Your task to perform on an android device: uninstall "eBay: The shopping marketplace" Image 0: 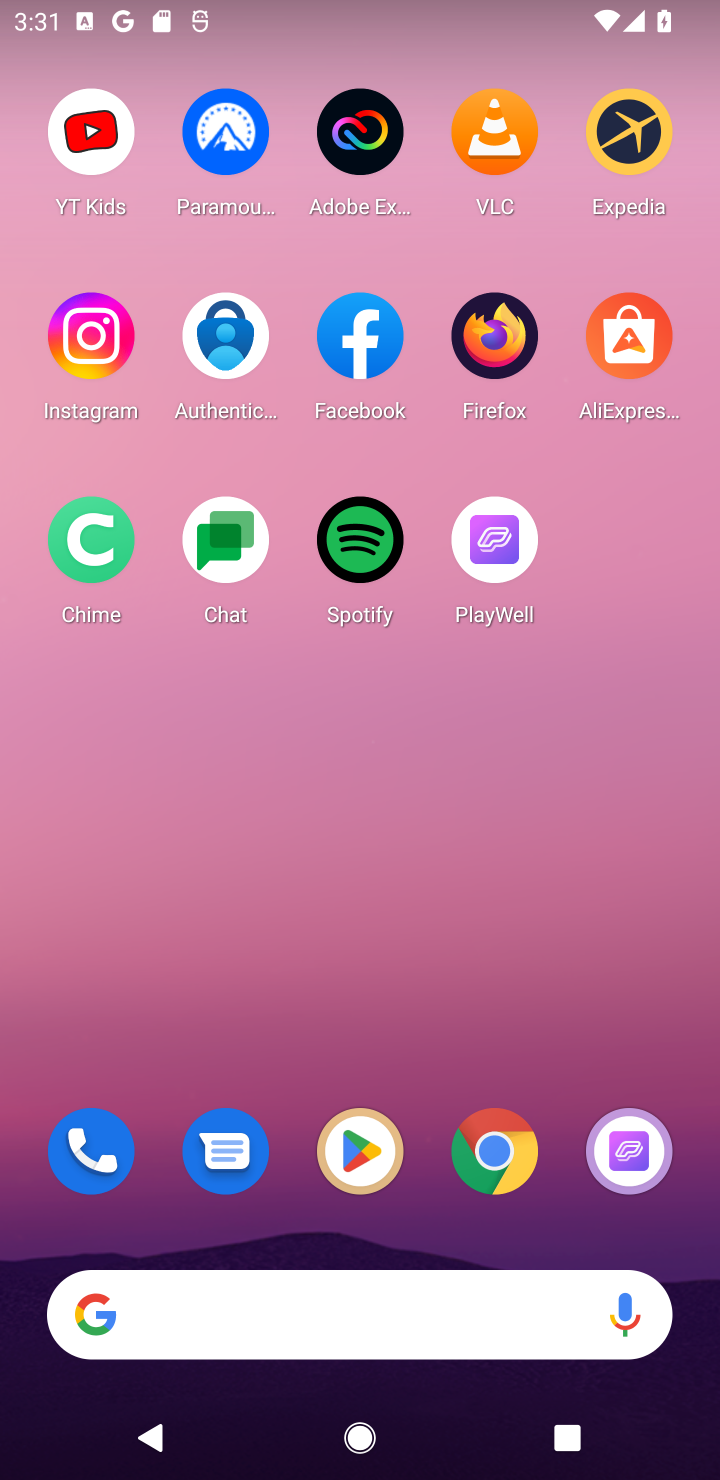
Step 0: press home button
Your task to perform on an android device: uninstall "eBay: The shopping marketplace" Image 1: 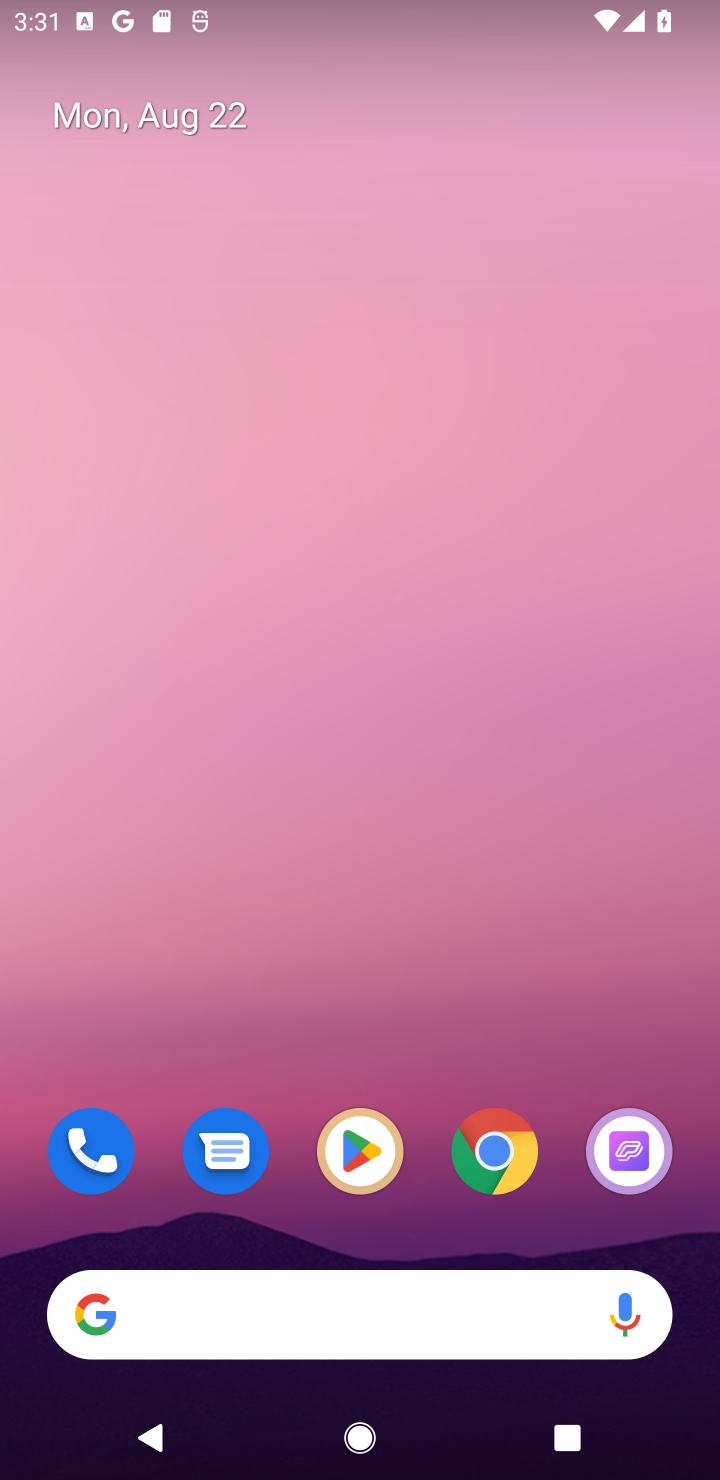
Step 1: click (359, 1159)
Your task to perform on an android device: uninstall "eBay: The shopping marketplace" Image 2: 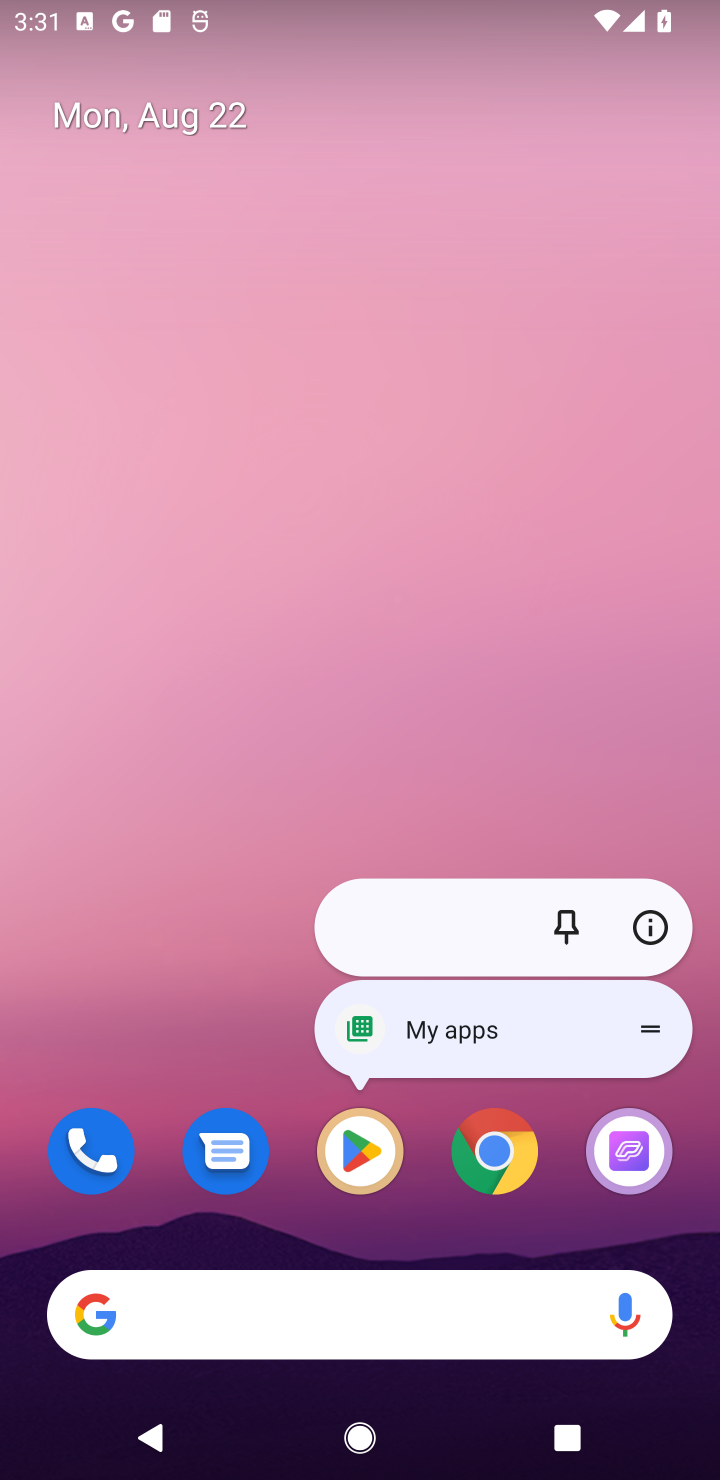
Step 2: click (355, 1160)
Your task to perform on an android device: uninstall "eBay: The shopping marketplace" Image 3: 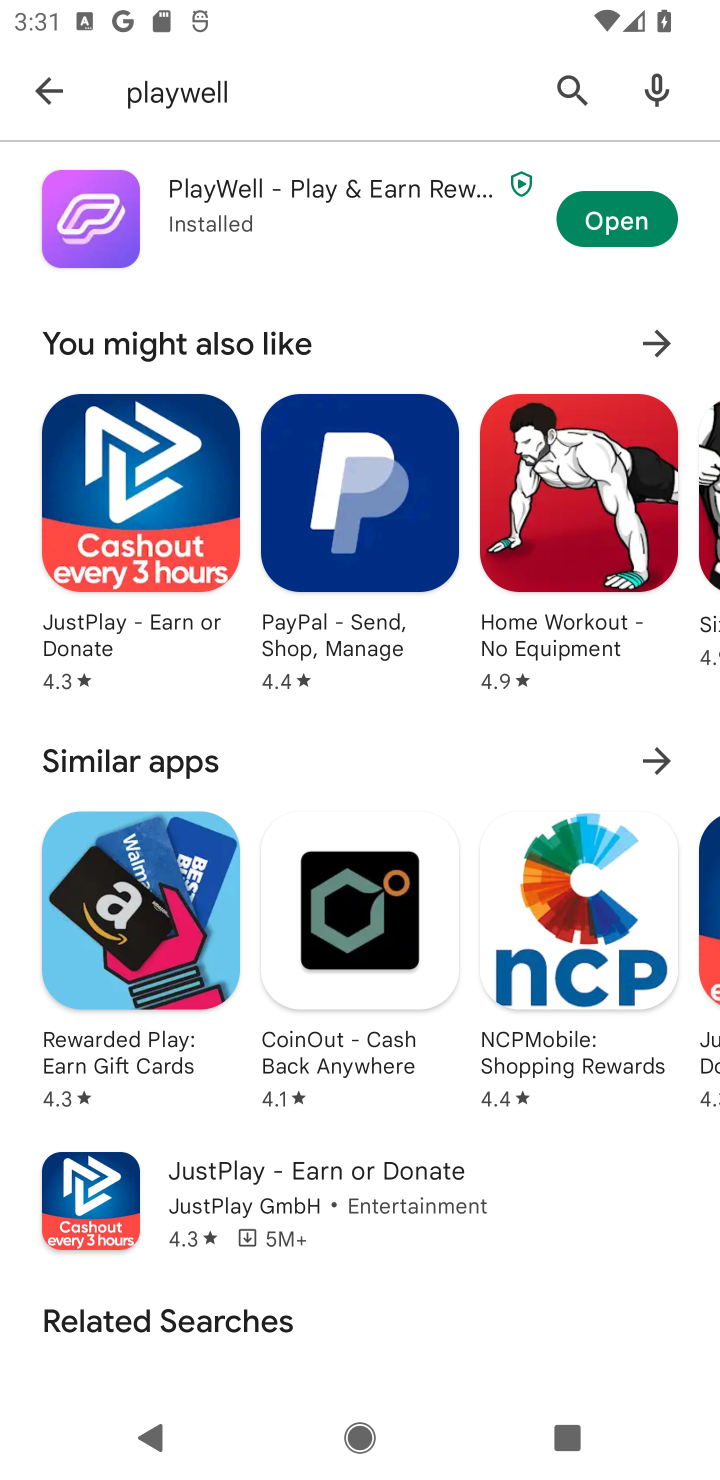
Step 3: click (552, 84)
Your task to perform on an android device: uninstall "eBay: The shopping marketplace" Image 4: 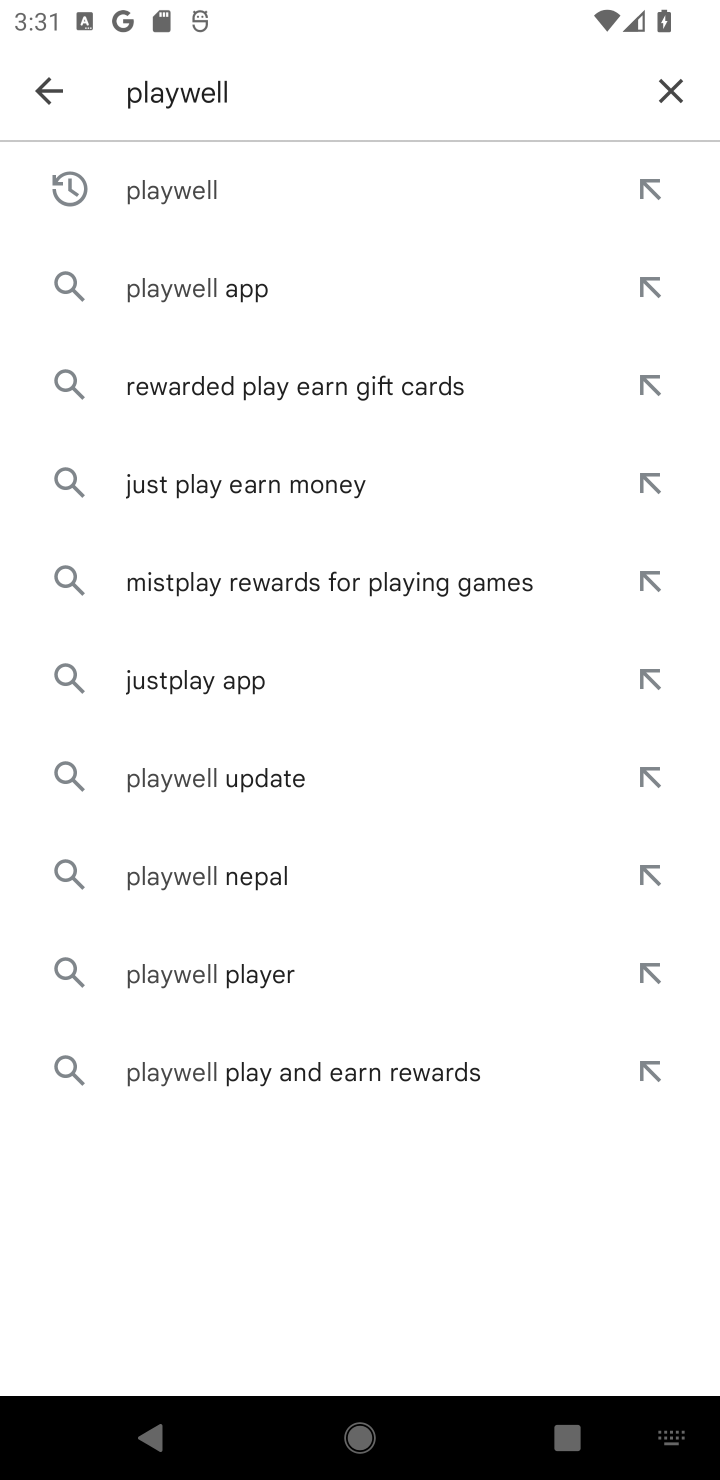
Step 4: click (664, 85)
Your task to perform on an android device: uninstall "eBay: The shopping marketplace" Image 5: 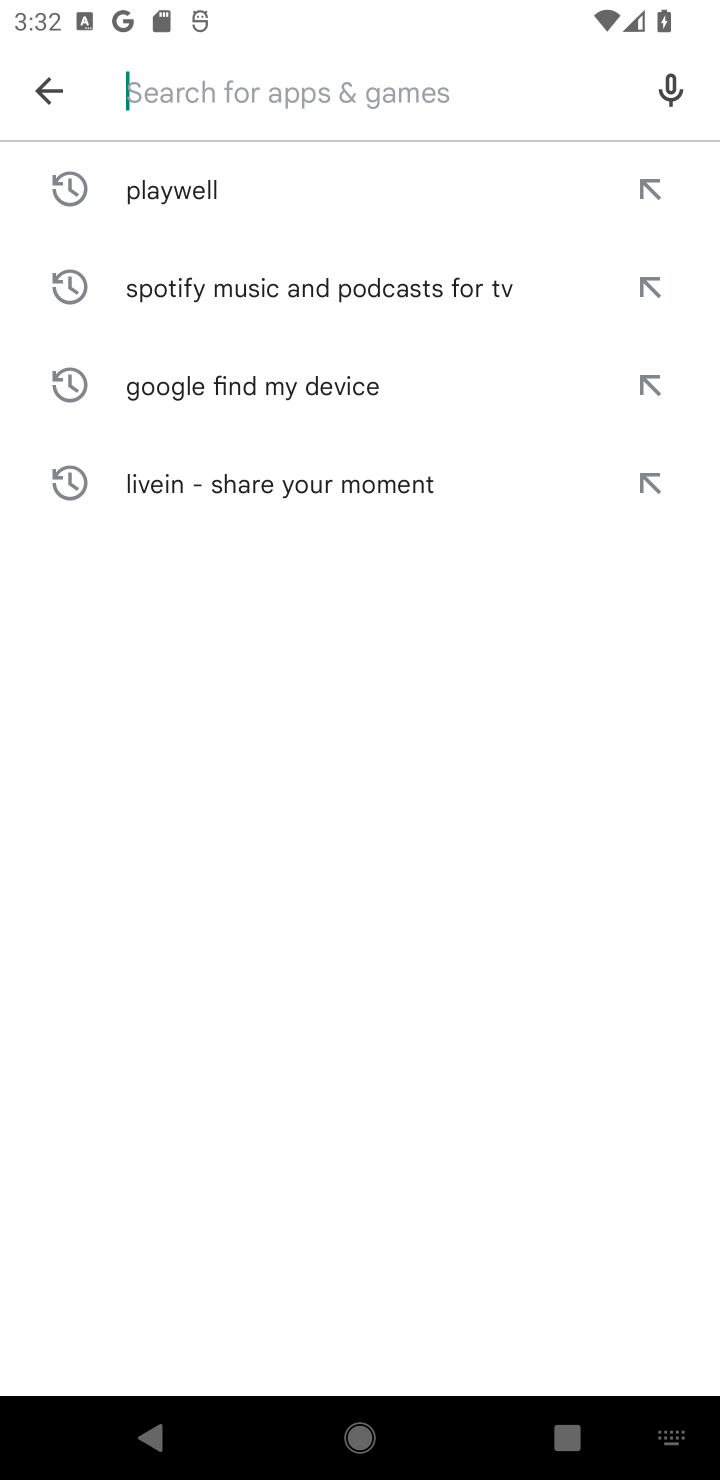
Step 5: type "eBay: The shopping marketplace"
Your task to perform on an android device: uninstall "eBay: The shopping marketplace" Image 6: 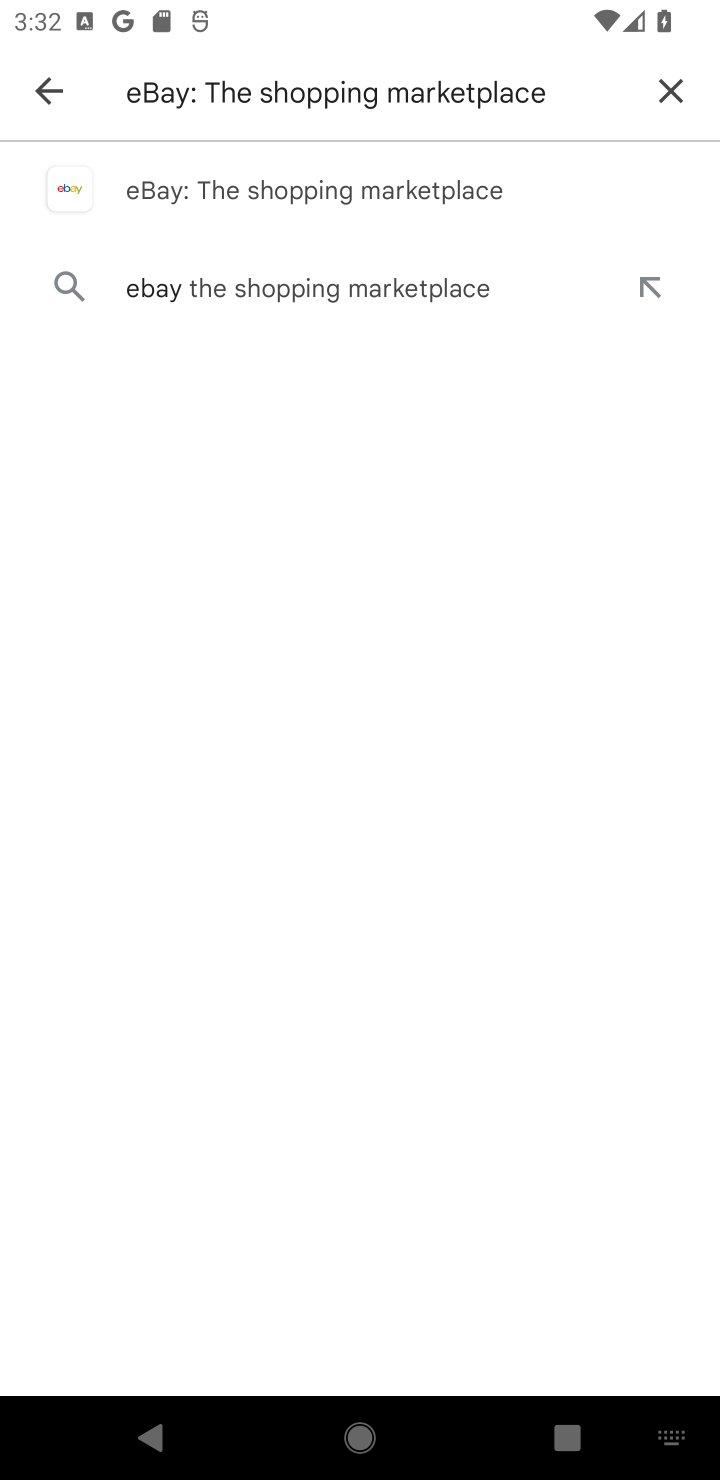
Step 6: click (281, 177)
Your task to perform on an android device: uninstall "eBay: The shopping marketplace" Image 7: 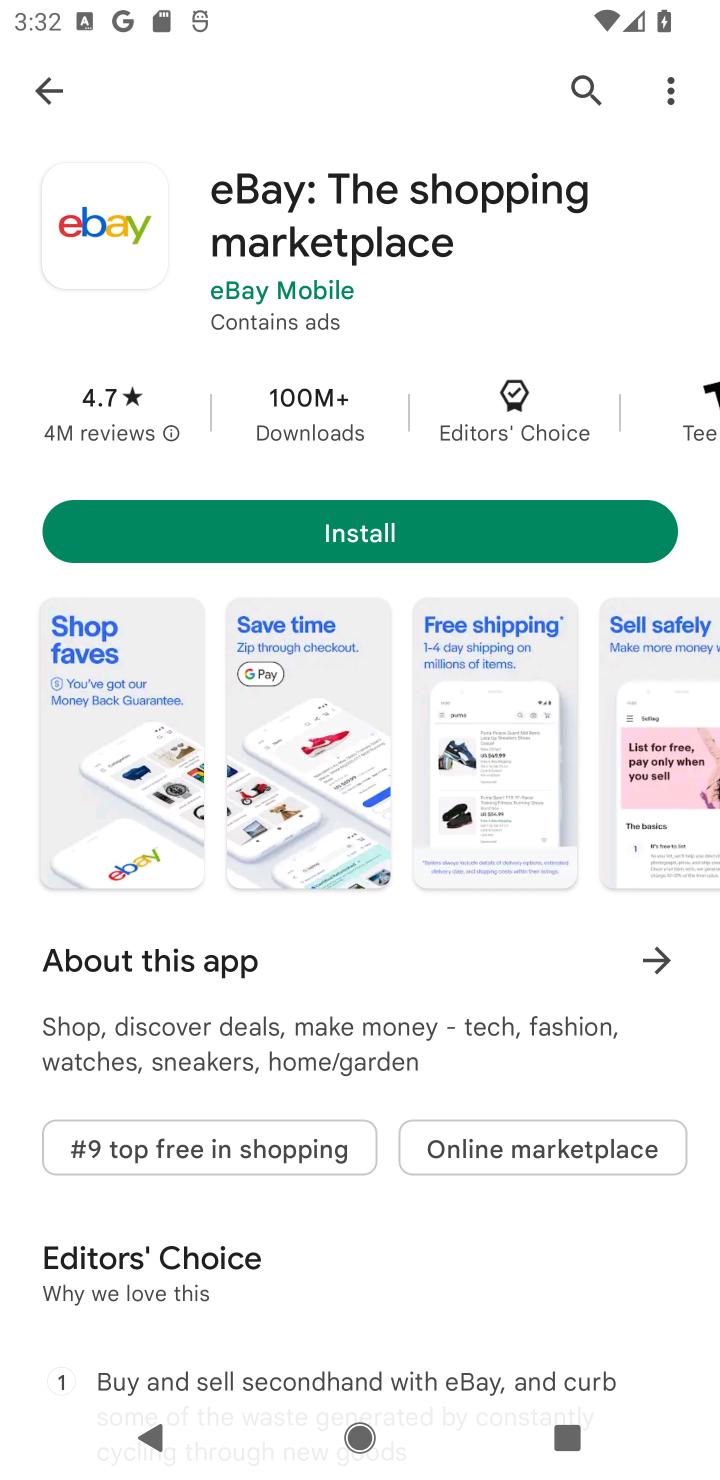
Step 7: task complete